Your task to perform on an android device: open app "Microsoft Authenticator" (install if not already installed) and enter user name: "Cornell@yahoo.com" and password: "bothersome" Image 0: 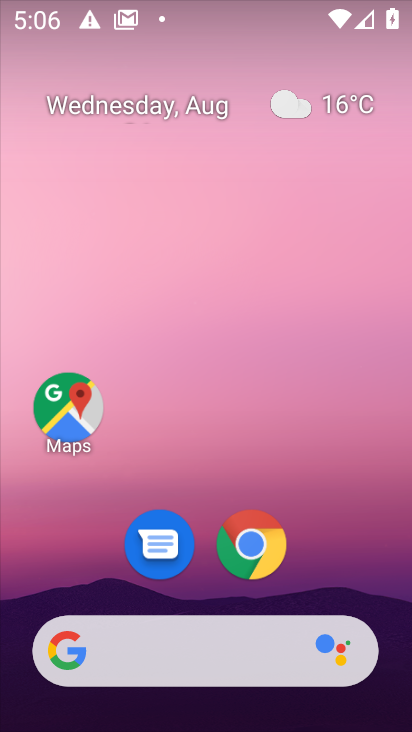
Step 0: drag from (197, 647) to (285, 13)
Your task to perform on an android device: open app "Microsoft Authenticator" (install if not already installed) and enter user name: "Cornell@yahoo.com" and password: "bothersome" Image 1: 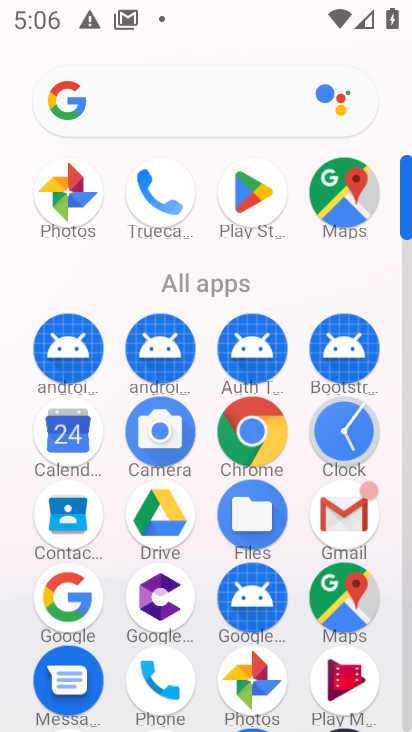
Step 1: click (256, 193)
Your task to perform on an android device: open app "Microsoft Authenticator" (install if not already installed) and enter user name: "Cornell@yahoo.com" and password: "bothersome" Image 2: 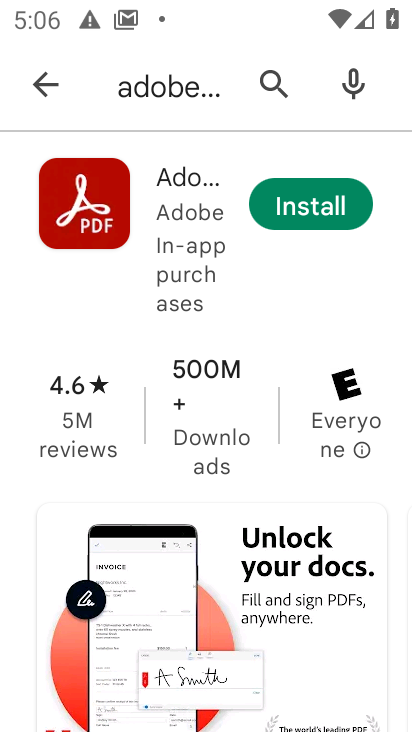
Step 2: press back button
Your task to perform on an android device: open app "Microsoft Authenticator" (install if not already installed) and enter user name: "Cornell@yahoo.com" and password: "bothersome" Image 3: 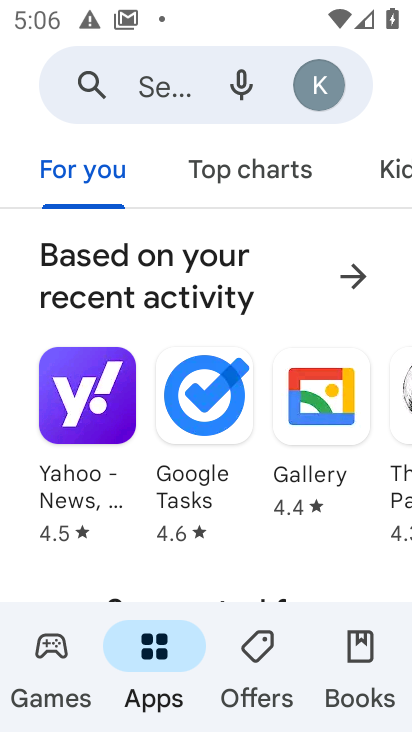
Step 3: click (181, 82)
Your task to perform on an android device: open app "Microsoft Authenticator" (install if not already installed) and enter user name: "Cornell@yahoo.com" and password: "bothersome" Image 4: 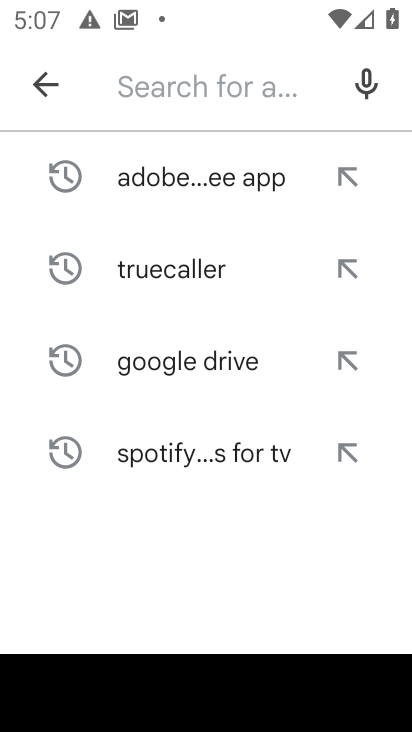
Step 4: type "Microsoft Authenticator"
Your task to perform on an android device: open app "Microsoft Authenticator" (install if not already installed) and enter user name: "Cornell@yahoo.com" and password: "bothersome" Image 5: 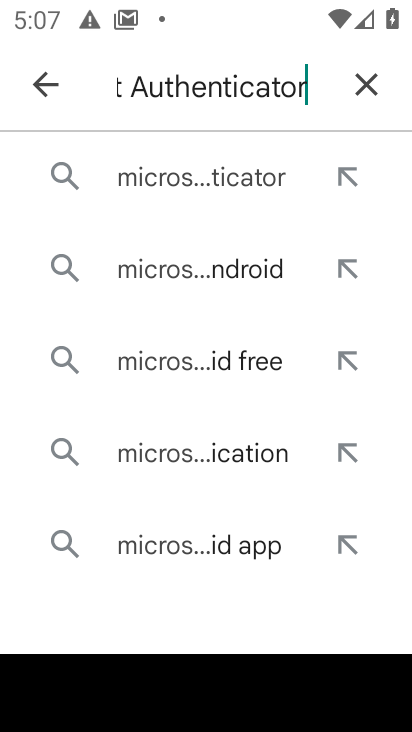
Step 5: click (156, 185)
Your task to perform on an android device: open app "Microsoft Authenticator" (install if not already installed) and enter user name: "Cornell@yahoo.com" and password: "bothersome" Image 6: 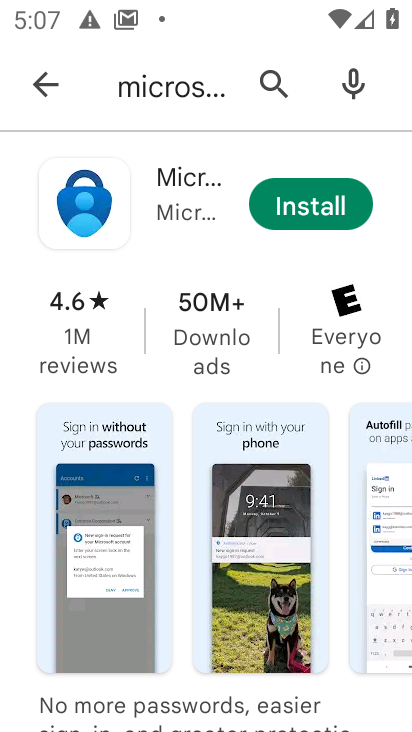
Step 6: click (322, 211)
Your task to perform on an android device: open app "Microsoft Authenticator" (install if not already installed) and enter user name: "Cornell@yahoo.com" and password: "bothersome" Image 7: 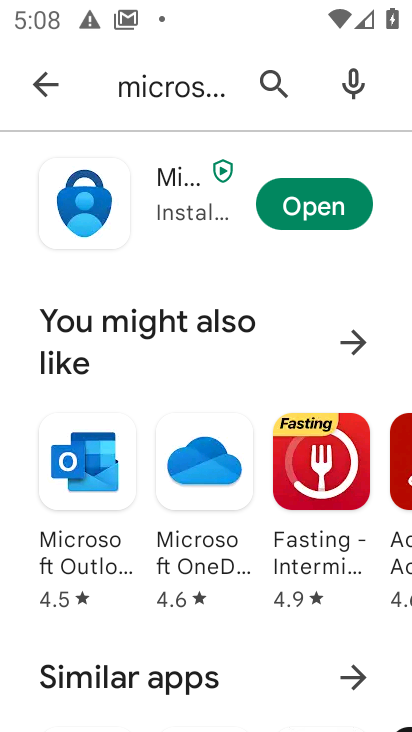
Step 7: click (315, 212)
Your task to perform on an android device: open app "Microsoft Authenticator" (install if not already installed) and enter user name: "Cornell@yahoo.com" and password: "bothersome" Image 8: 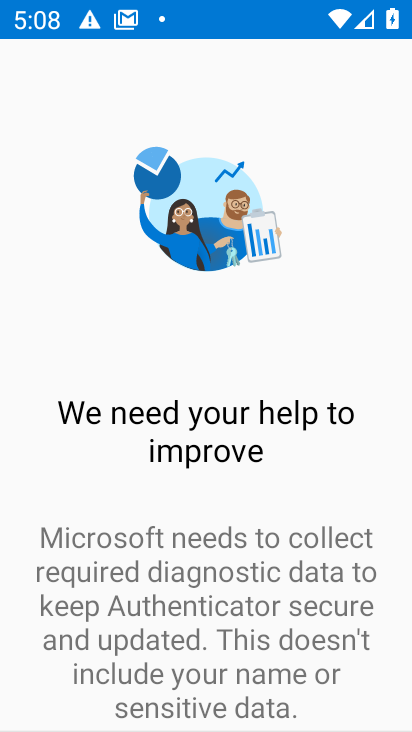
Step 8: drag from (264, 487) to (313, 204)
Your task to perform on an android device: open app "Microsoft Authenticator" (install if not already installed) and enter user name: "Cornell@yahoo.com" and password: "bothersome" Image 9: 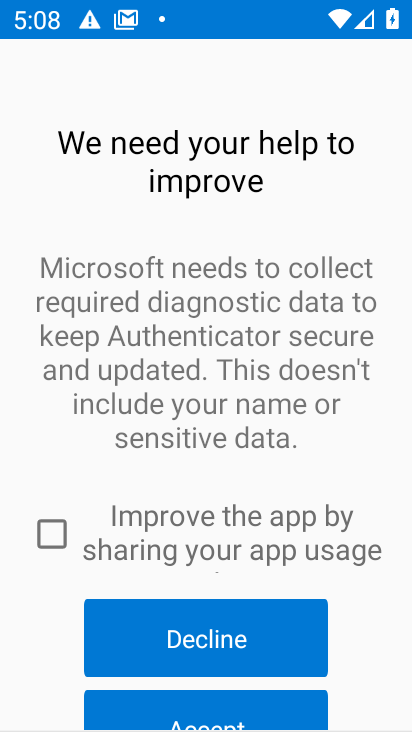
Step 9: drag from (271, 566) to (333, 378)
Your task to perform on an android device: open app "Microsoft Authenticator" (install if not already installed) and enter user name: "Cornell@yahoo.com" and password: "bothersome" Image 10: 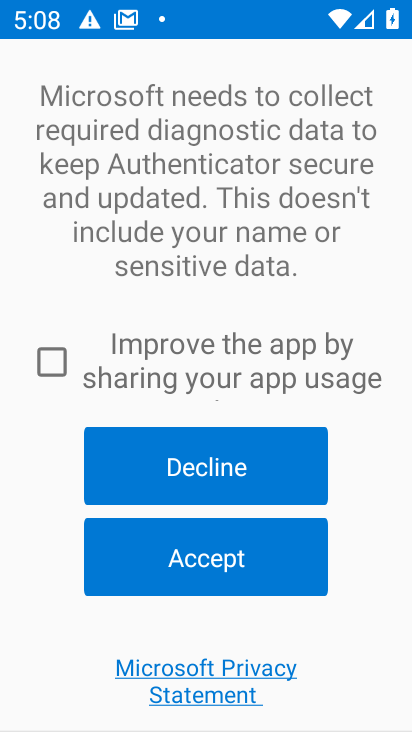
Step 10: click (215, 562)
Your task to perform on an android device: open app "Microsoft Authenticator" (install if not already installed) and enter user name: "Cornell@yahoo.com" and password: "bothersome" Image 11: 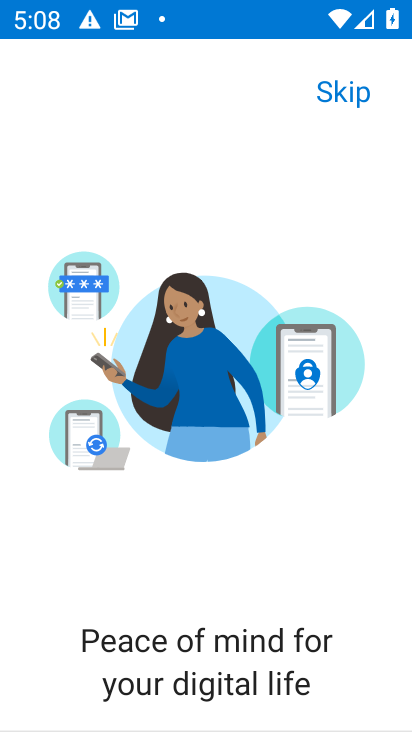
Step 11: click (347, 83)
Your task to perform on an android device: open app "Microsoft Authenticator" (install if not already installed) and enter user name: "Cornell@yahoo.com" and password: "bothersome" Image 12: 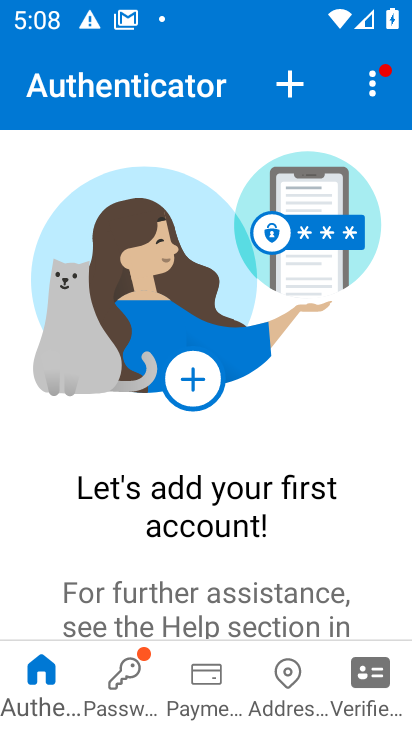
Step 12: drag from (292, 512) to (383, 188)
Your task to perform on an android device: open app "Microsoft Authenticator" (install if not already installed) and enter user name: "Cornell@yahoo.com" and password: "bothersome" Image 13: 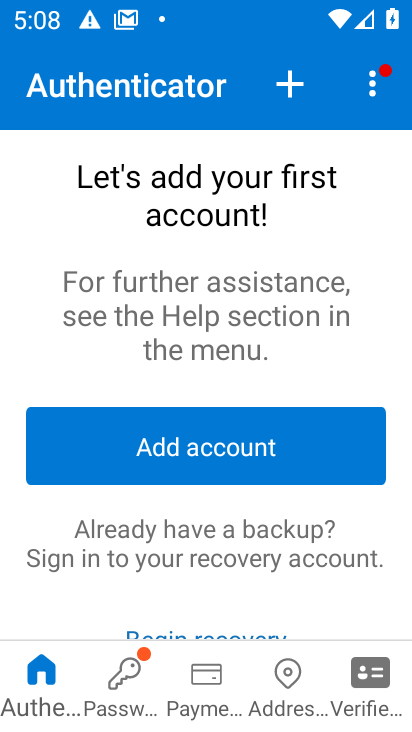
Step 13: drag from (239, 557) to (288, 413)
Your task to perform on an android device: open app "Microsoft Authenticator" (install if not already installed) and enter user name: "Cornell@yahoo.com" and password: "bothersome" Image 14: 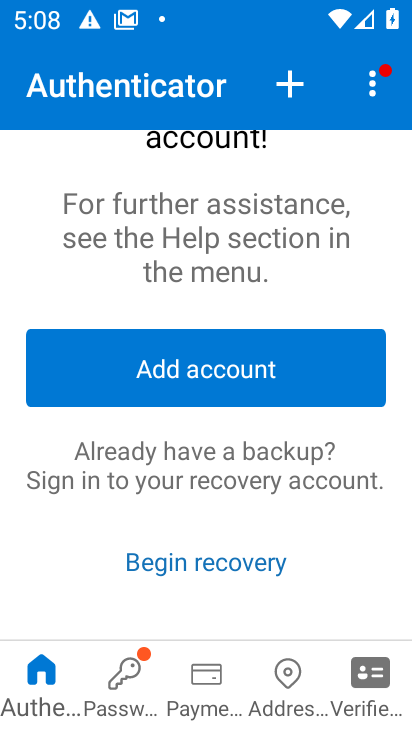
Step 14: click (248, 372)
Your task to perform on an android device: open app "Microsoft Authenticator" (install if not already installed) and enter user name: "Cornell@yahoo.com" and password: "bothersome" Image 15: 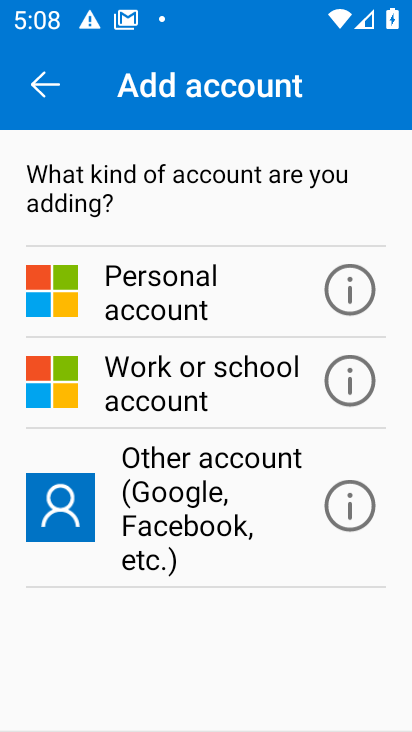
Step 15: click (363, 290)
Your task to perform on an android device: open app "Microsoft Authenticator" (install if not already installed) and enter user name: "Cornell@yahoo.com" and password: "bothersome" Image 16: 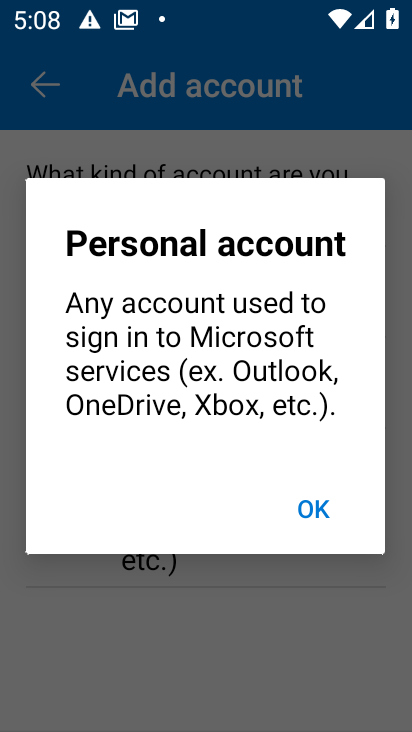
Step 16: click (312, 504)
Your task to perform on an android device: open app "Microsoft Authenticator" (install if not already installed) and enter user name: "Cornell@yahoo.com" and password: "bothersome" Image 17: 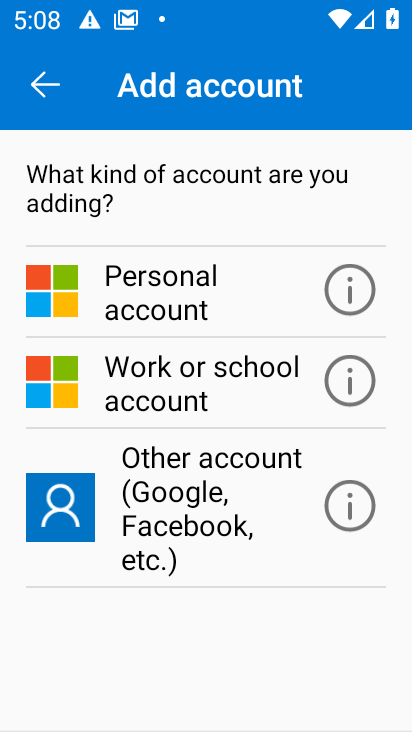
Step 17: click (88, 272)
Your task to perform on an android device: open app "Microsoft Authenticator" (install if not already installed) and enter user name: "Cornell@yahoo.com" and password: "bothersome" Image 18: 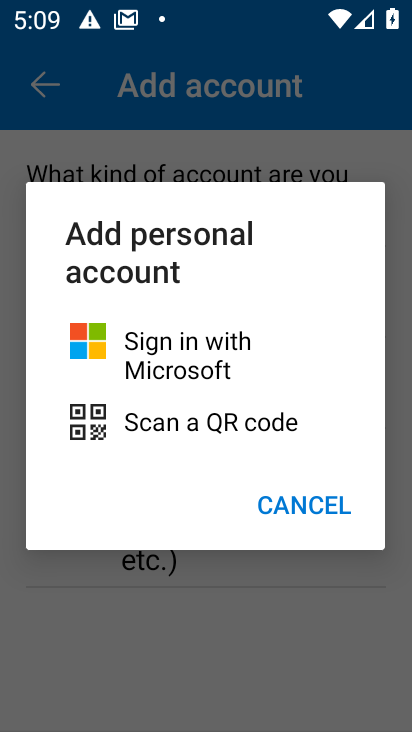
Step 18: click (156, 358)
Your task to perform on an android device: open app "Microsoft Authenticator" (install if not already installed) and enter user name: "Cornell@yahoo.com" and password: "bothersome" Image 19: 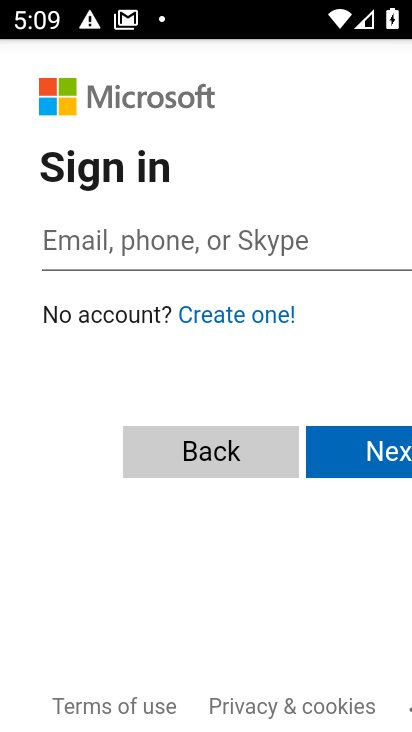
Step 19: click (226, 249)
Your task to perform on an android device: open app "Microsoft Authenticator" (install if not already installed) and enter user name: "Cornell@yahoo.com" and password: "bothersome" Image 20: 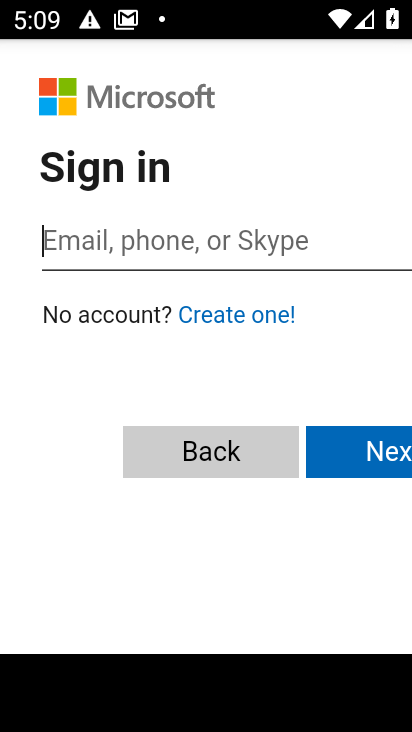
Step 20: type "Cornell@yahoo.com"
Your task to perform on an android device: open app "Microsoft Authenticator" (install if not already installed) and enter user name: "Cornell@yahoo.com" and password: "bothersome" Image 21: 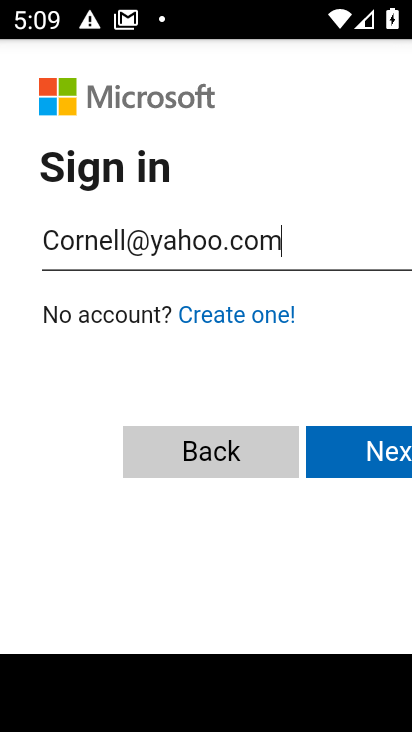
Step 21: type ""
Your task to perform on an android device: open app "Microsoft Authenticator" (install if not already installed) and enter user name: "Cornell@yahoo.com" and password: "bothersome" Image 22: 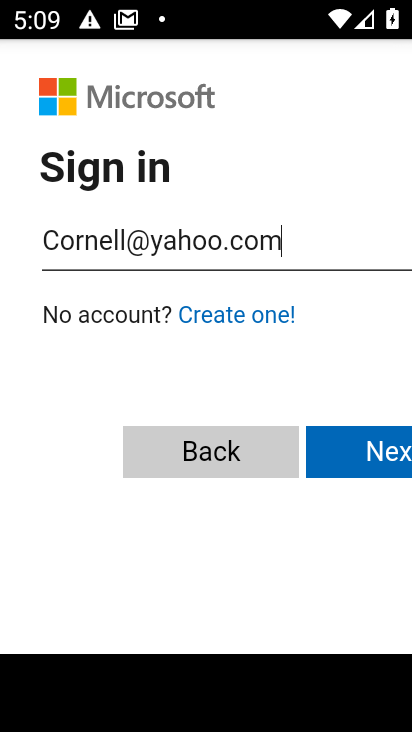
Step 22: click (362, 459)
Your task to perform on an android device: open app "Microsoft Authenticator" (install if not already installed) and enter user name: "Cornell@yahoo.com" and password: "bothersome" Image 23: 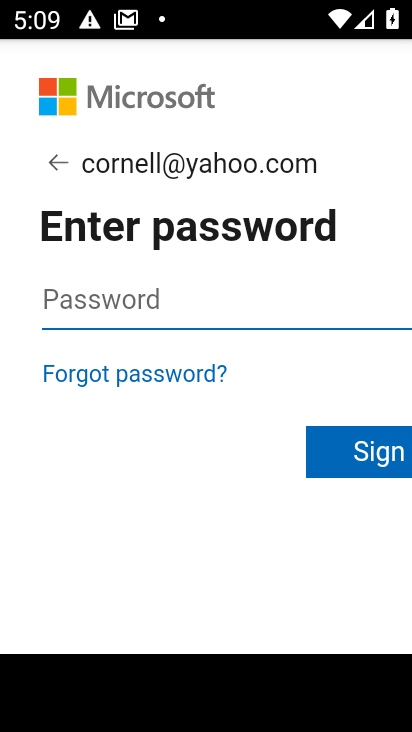
Step 23: type "bothersome"
Your task to perform on an android device: open app "Microsoft Authenticator" (install if not already installed) and enter user name: "Cornell@yahoo.com" and password: "bothersome" Image 24: 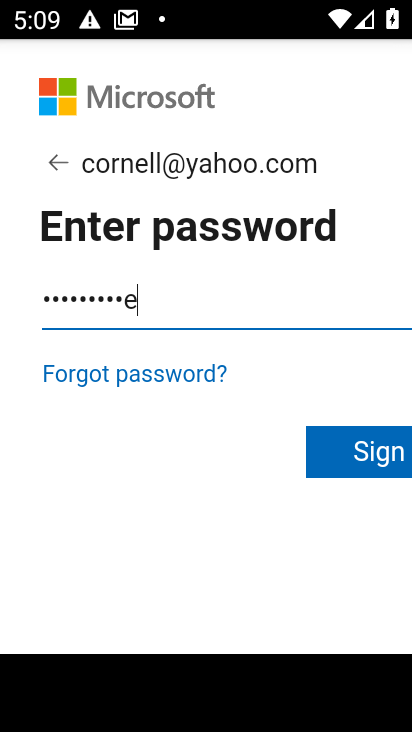
Step 24: type ""
Your task to perform on an android device: open app "Microsoft Authenticator" (install if not already installed) and enter user name: "Cornell@yahoo.com" and password: "bothersome" Image 25: 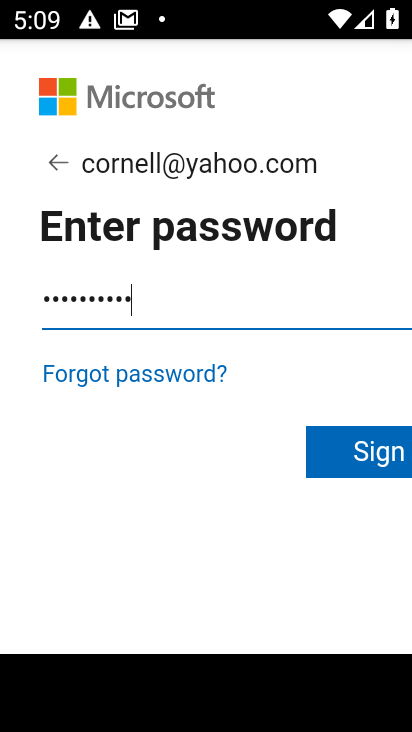
Step 25: task complete